Your task to perform on an android device: set the stopwatch Image 0: 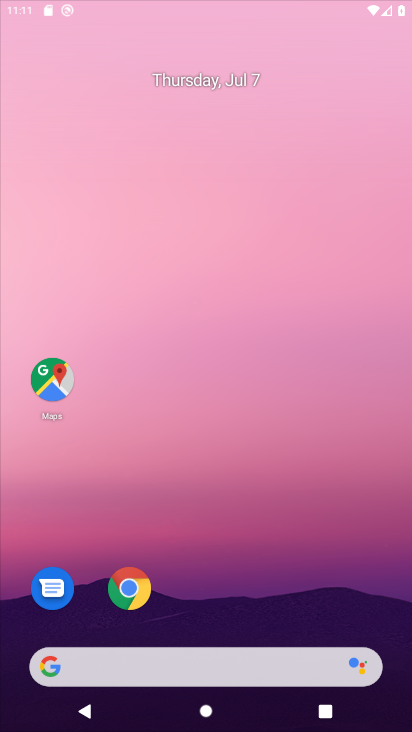
Step 0: click (340, 0)
Your task to perform on an android device: set the stopwatch Image 1: 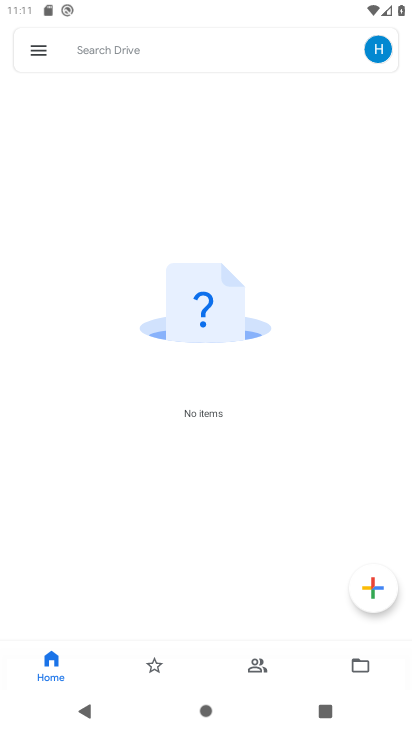
Step 1: press home button
Your task to perform on an android device: set the stopwatch Image 2: 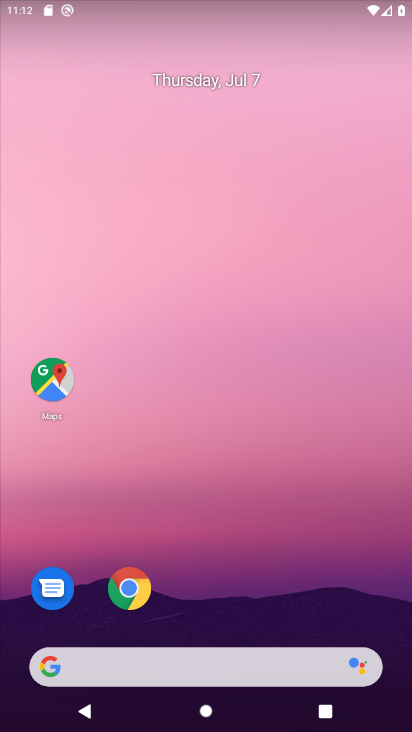
Step 2: drag from (211, 671) to (393, 5)
Your task to perform on an android device: set the stopwatch Image 3: 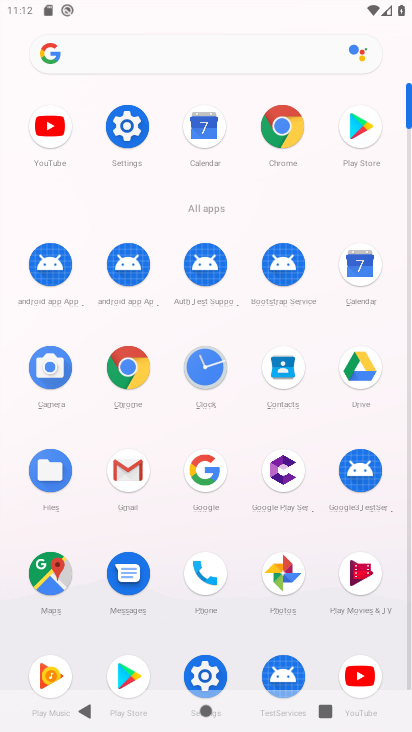
Step 3: click (206, 371)
Your task to perform on an android device: set the stopwatch Image 4: 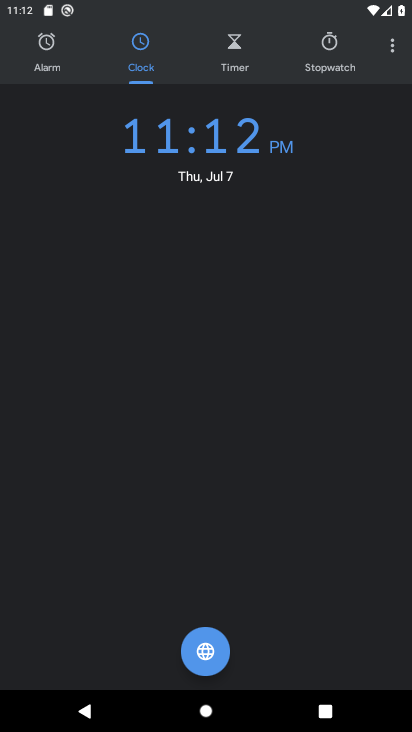
Step 4: click (336, 64)
Your task to perform on an android device: set the stopwatch Image 5: 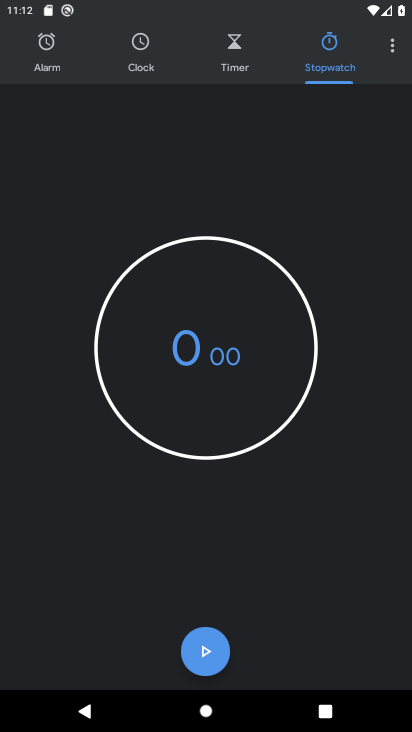
Step 5: click (194, 380)
Your task to perform on an android device: set the stopwatch Image 6: 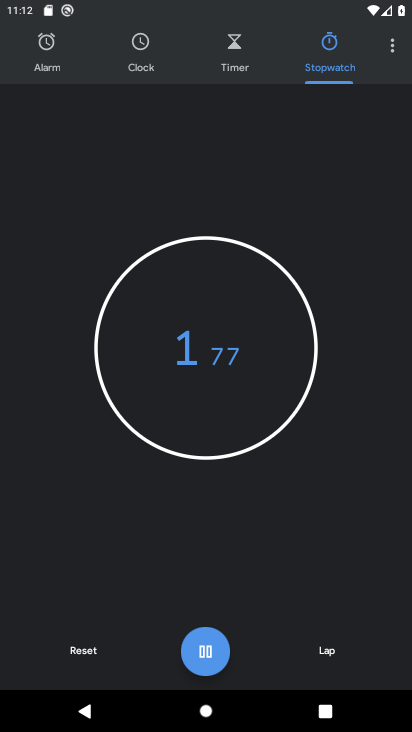
Step 6: click (206, 367)
Your task to perform on an android device: set the stopwatch Image 7: 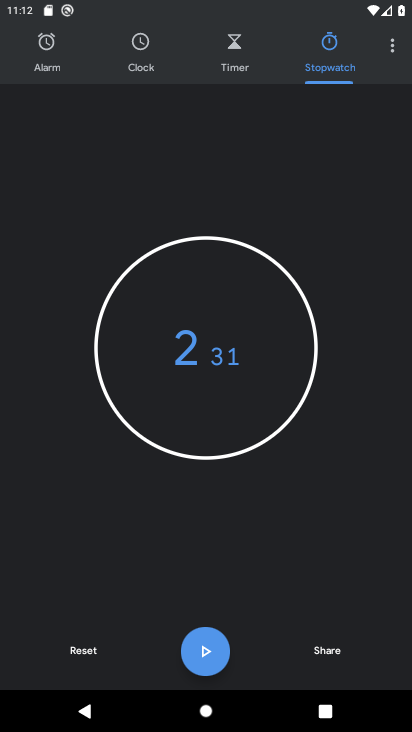
Step 7: task complete